Your task to perform on an android device: Open location settings Image 0: 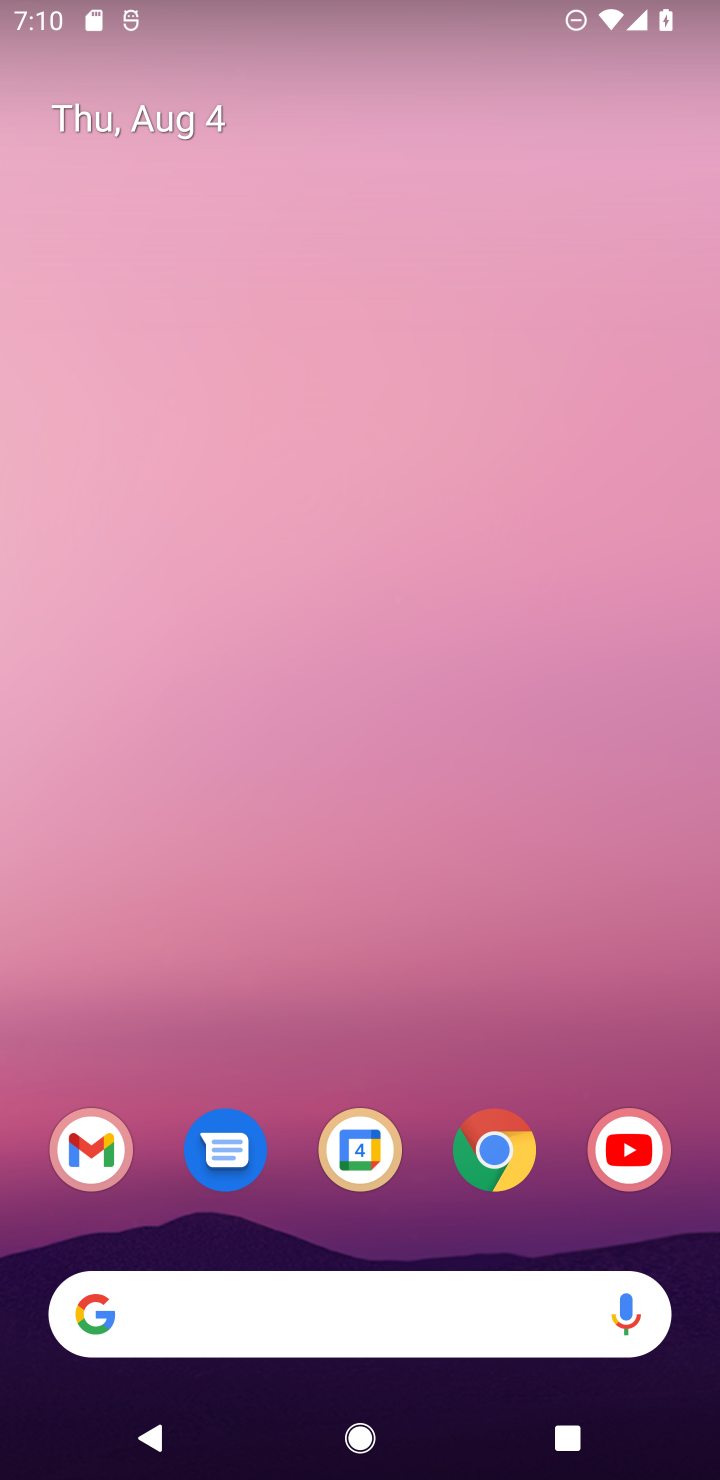
Step 0: drag from (262, 1326) to (295, 209)
Your task to perform on an android device: Open location settings Image 1: 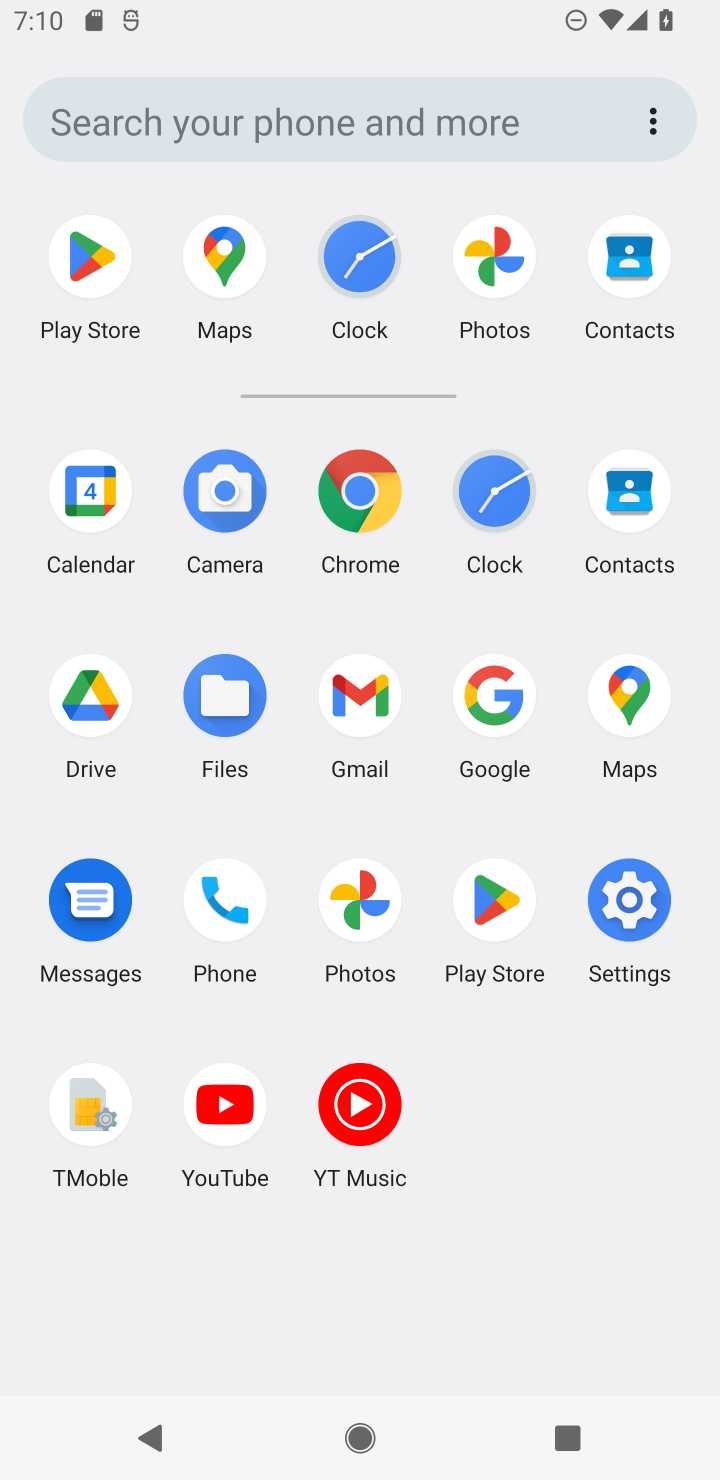
Step 1: click (629, 897)
Your task to perform on an android device: Open location settings Image 2: 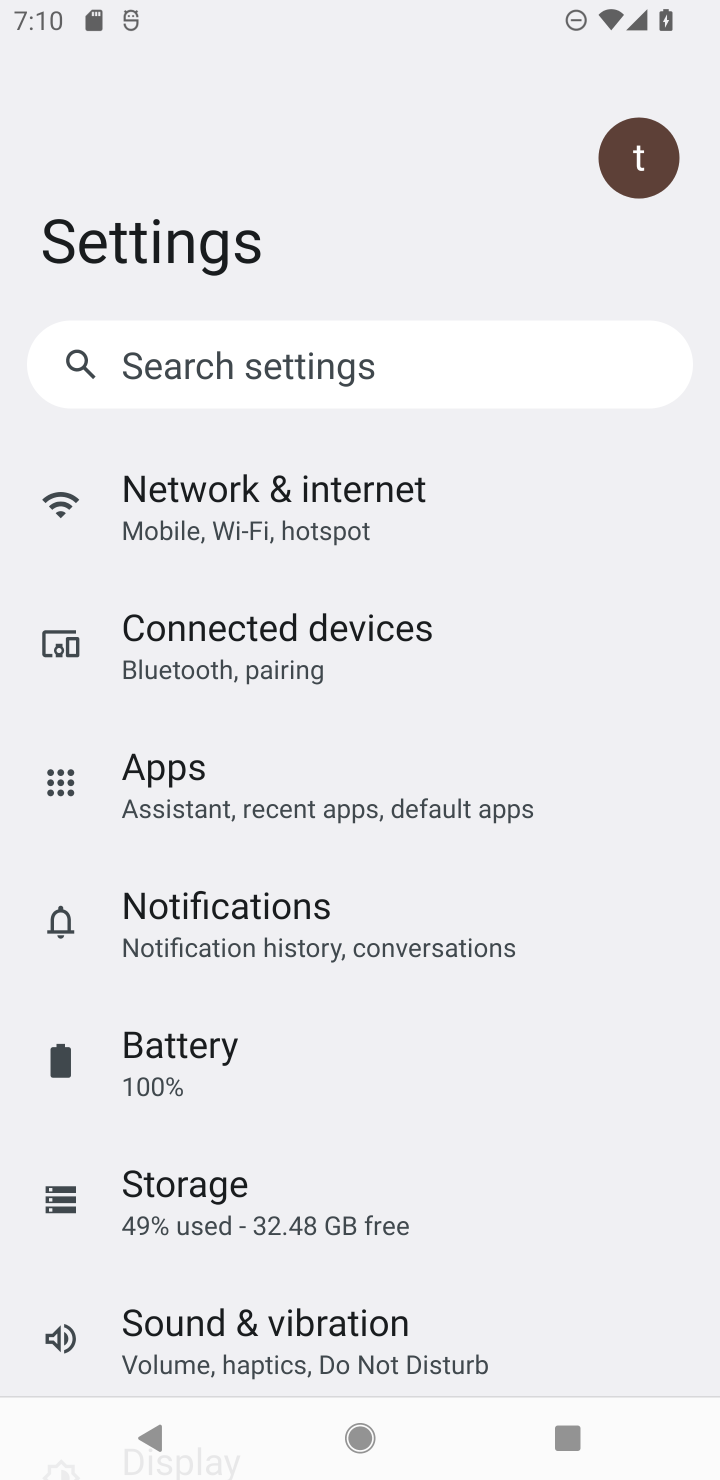
Step 2: drag from (239, 1323) to (451, 435)
Your task to perform on an android device: Open location settings Image 3: 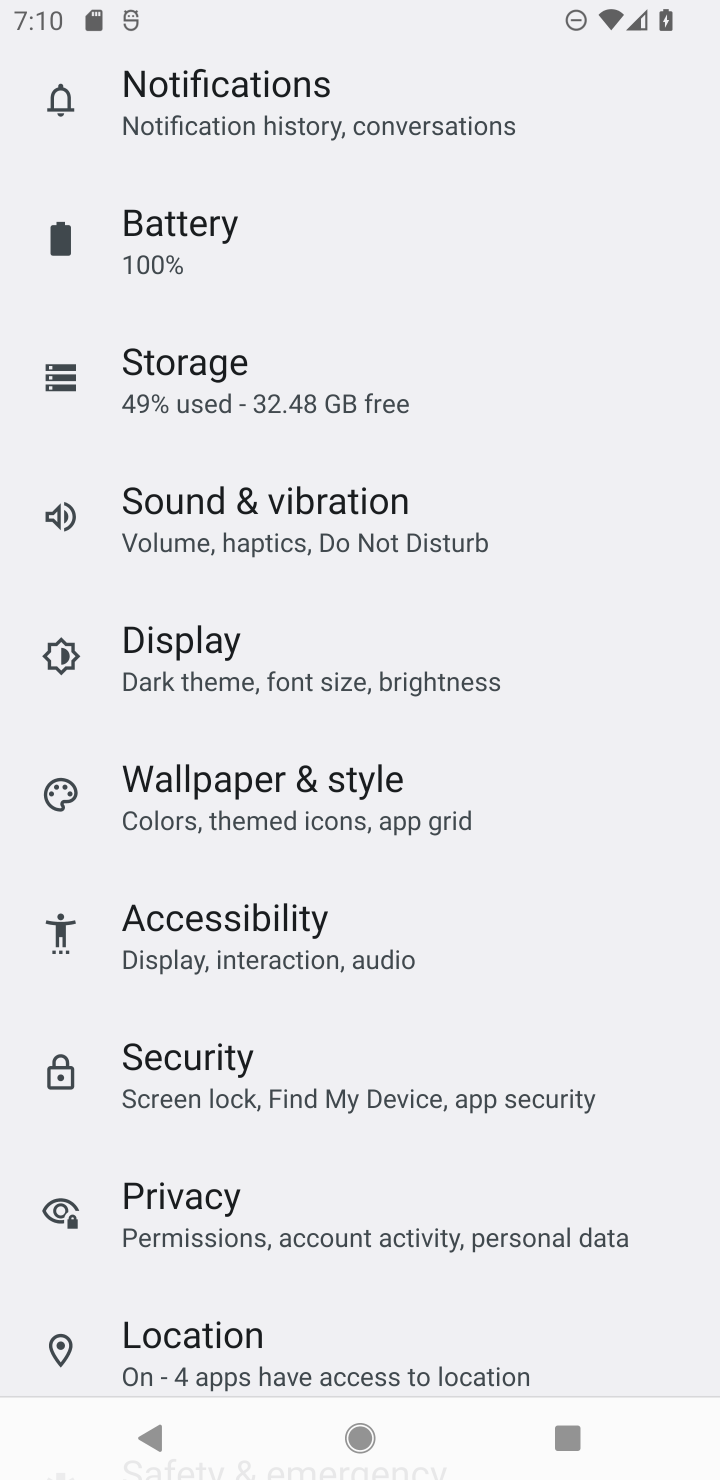
Step 3: click (223, 1332)
Your task to perform on an android device: Open location settings Image 4: 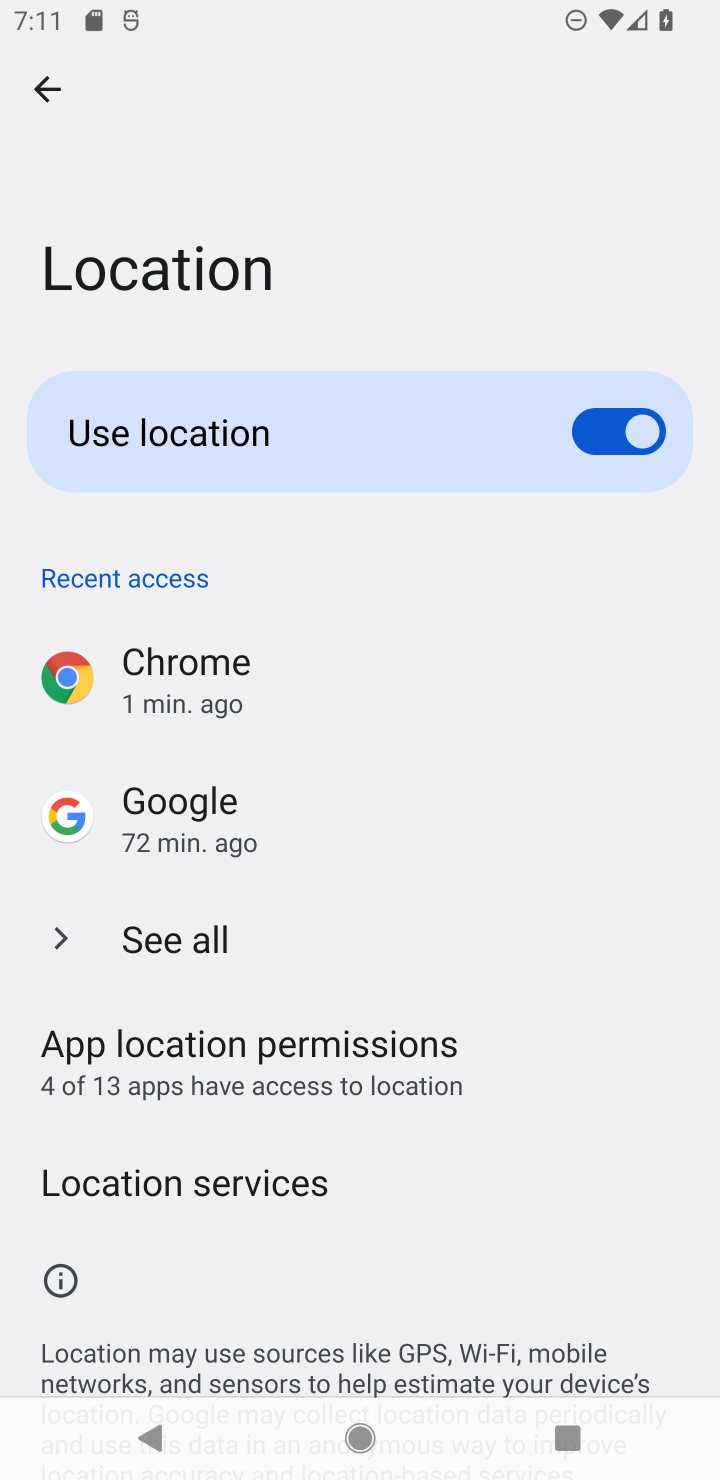
Step 4: task complete